Your task to perform on an android device: turn off javascript in the chrome app Image 0: 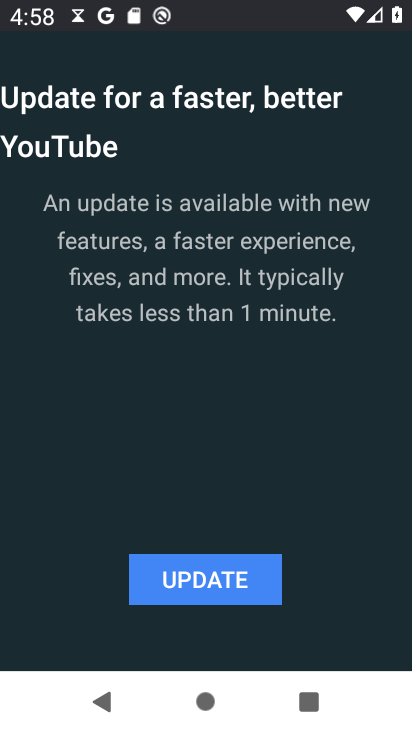
Step 0: press home button
Your task to perform on an android device: turn off javascript in the chrome app Image 1: 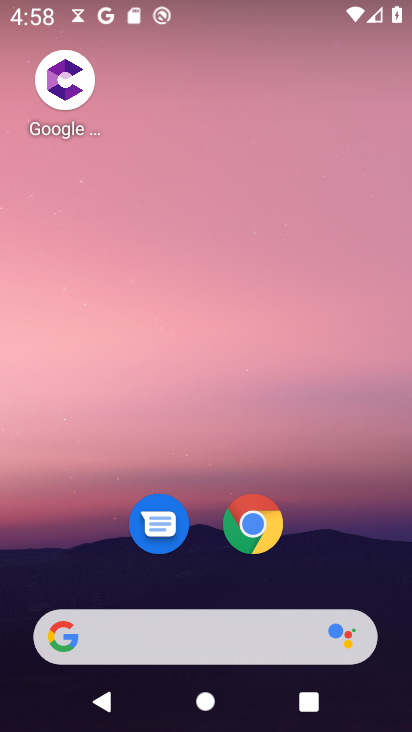
Step 1: click (271, 538)
Your task to perform on an android device: turn off javascript in the chrome app Image 2: 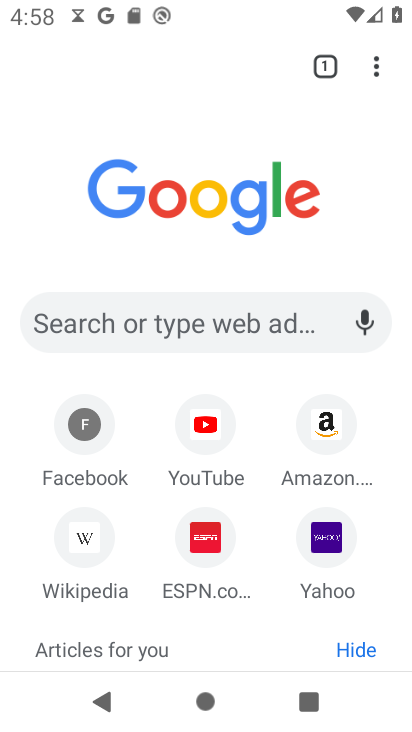
Step 2: drag from (372, 72) to (251, 563)
Your task to perform on an android device: turn off javascript in the chrome app Image 3: 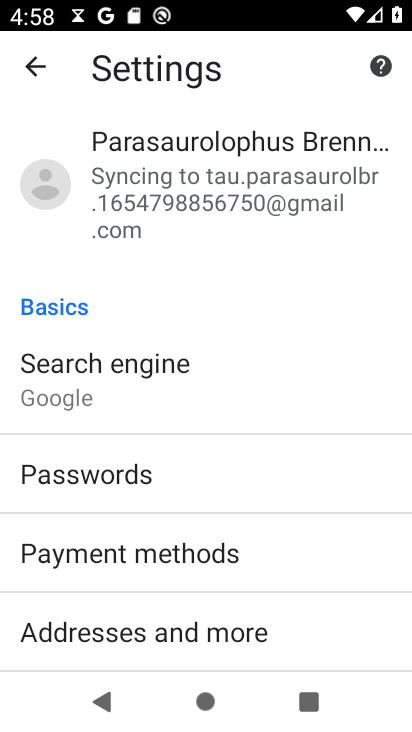
Step 3: drag from (135, 523) to (99, 88)
Your task to perform on an android device: turn off javascript in the chrome app Image 4: 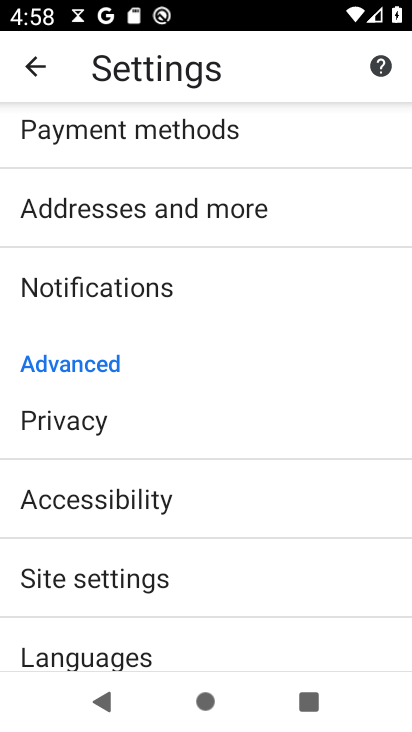
Step 4: click (144, 588)
Your task to perform on an android device: turn off javascript in the chrome app Image 5: 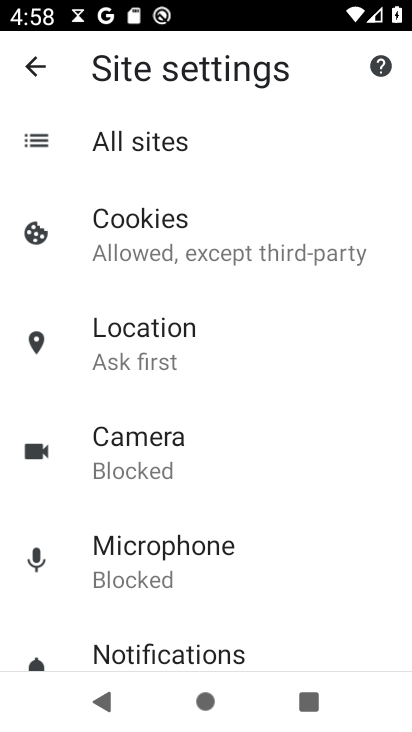
Step 5: drag from (177, 595) to (163, 131)
Your task to perform on an android device: turn off javascript in the chrome app Image 6: 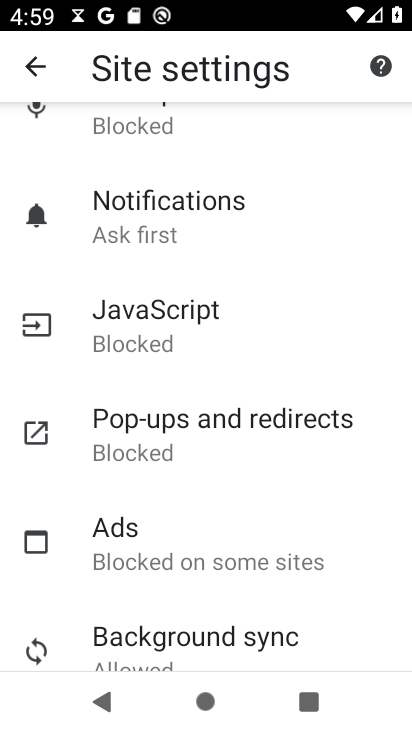
Step 6: click (135, 322)
Your task to perform on an android device: turn off javascript in the chrome app Image 7: 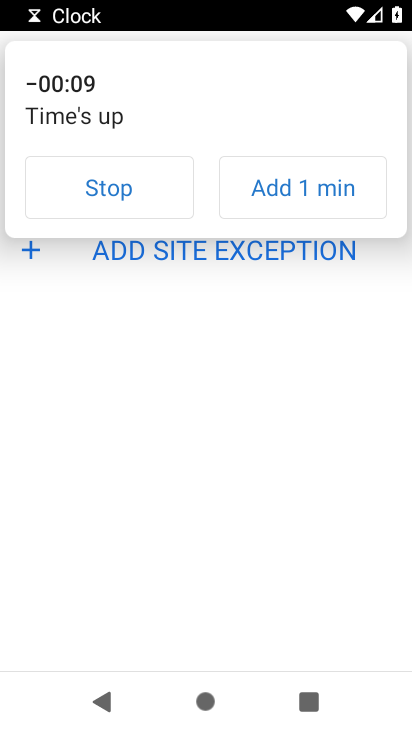
Step 7: click (92, 200)
Your task to perform on an android device: turn off javascript in the chrome app Image 8: 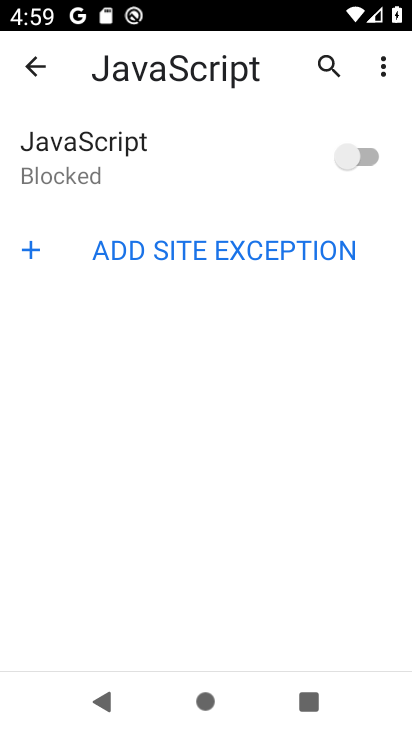
Step 8: task complete